Your task to perform on an android device: Go to sound settings Image 0: 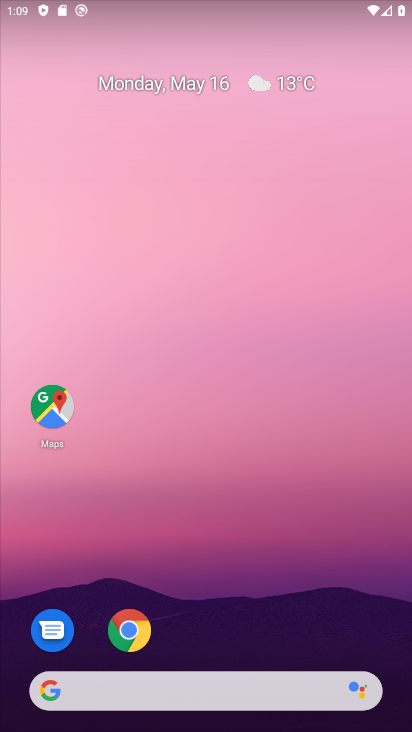
Step 0: drag from (236, 480) to (208, 345)
Your task to perform on an android device: Go to sound settings Image 1: 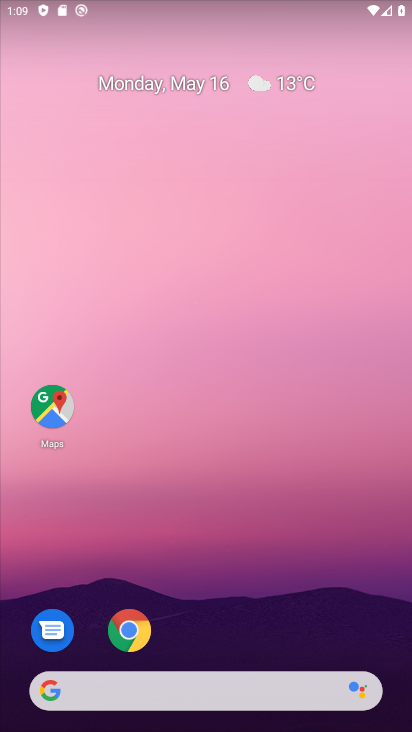
Step 1: drag from (250, 651) to (172, 228)
Your task to perform on an android device: Go to sound settings Image 2: 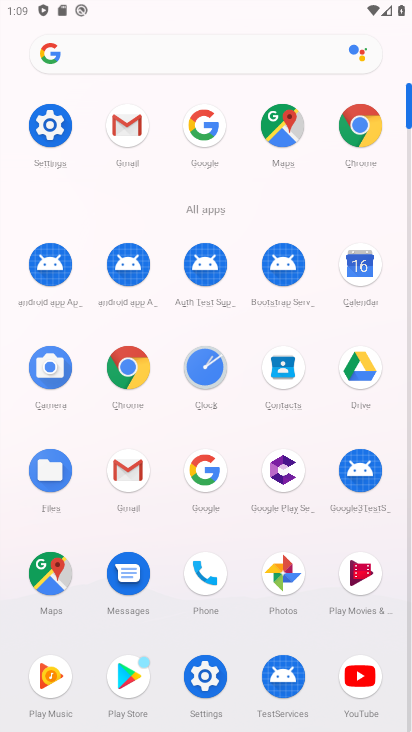
Step 2: click (51, 130)
Your task to perform on an android device: Go to sound settings Image 3: 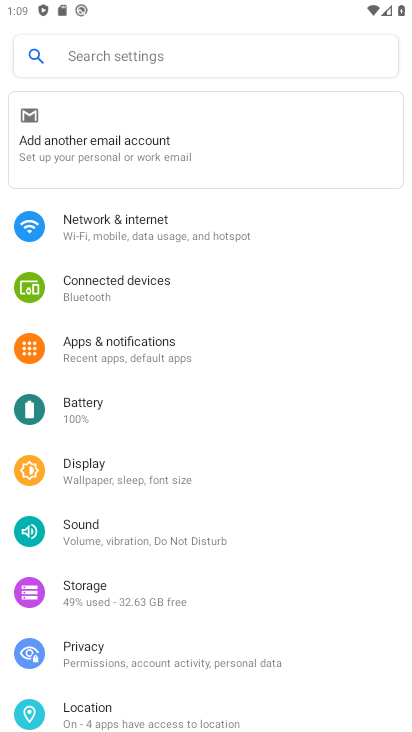
Step 3: click (168, 528)
Your task to perform on an android device: Go to sound settings Image 4: 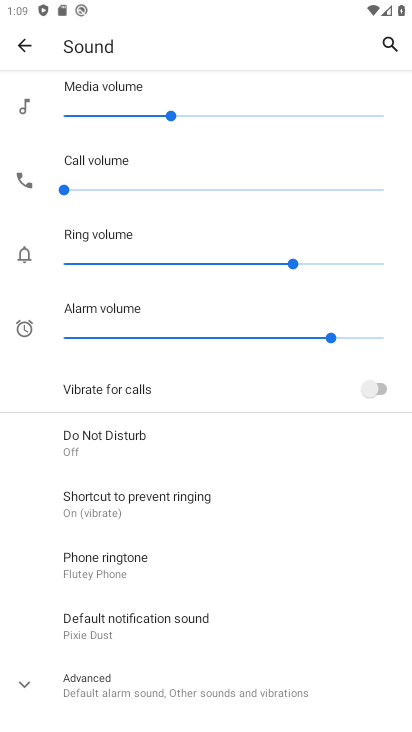
Step 4: task complete